Your task to perform on an android device: Go to Amazon Image 0: 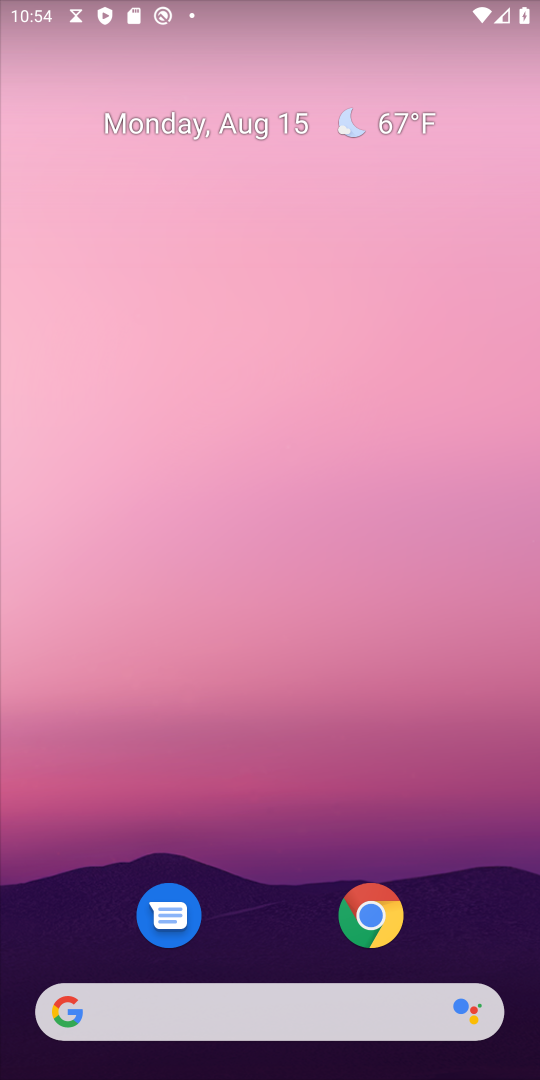
Step 0: click (378, 901)
Your task to perform on an android device: Go to Amazon Image 1: 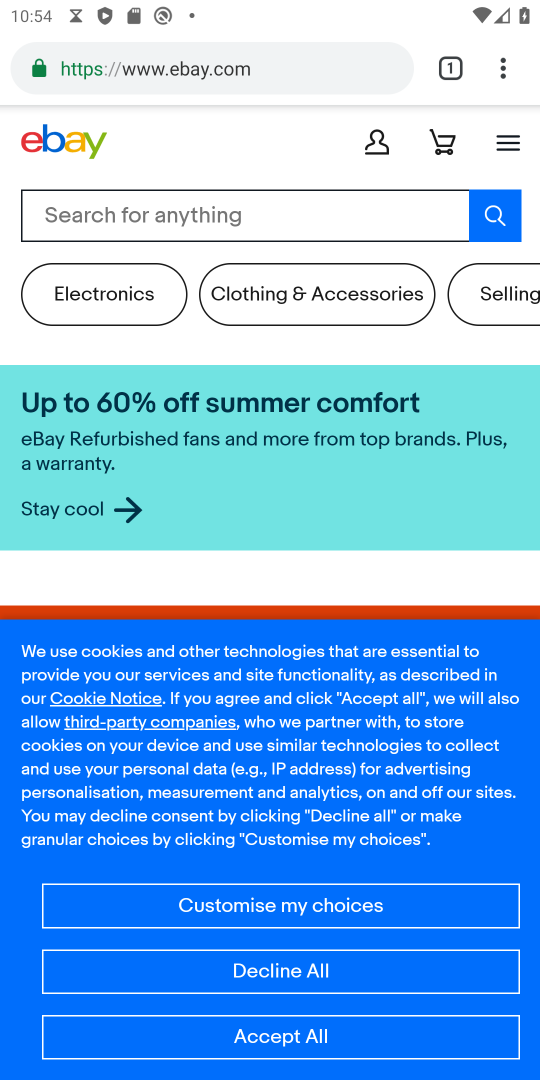
Step 1: click (455, 80)
Your task to perform on an android device: Go to Amazon Image 2: 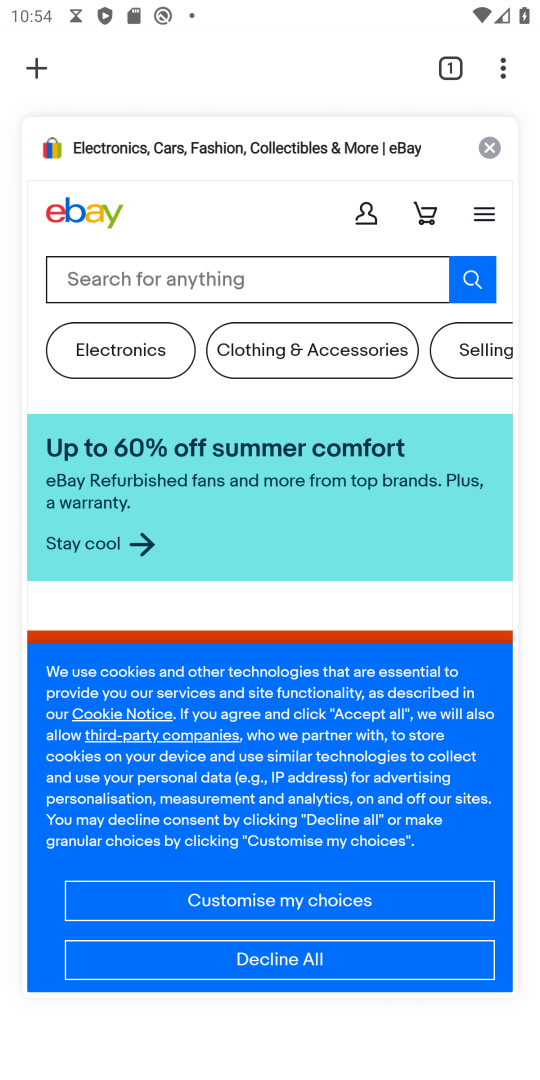
Step 2: click (41, 65)
Your task to perform on an android device: Go to Amazon Image 3: 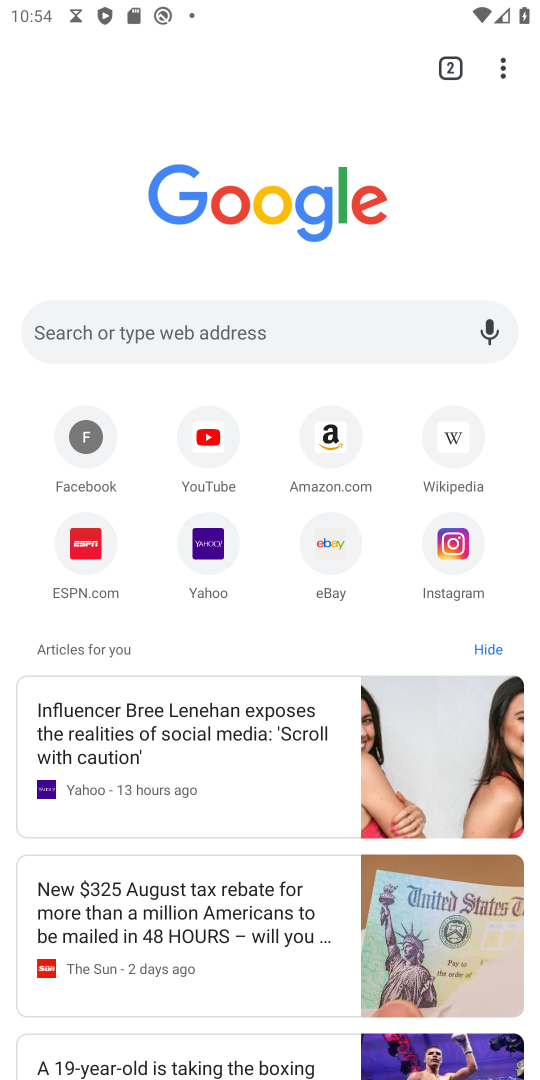
Step 3: click (326, 427)
Your task to perform on an android device: Go to Amazon Image 4: 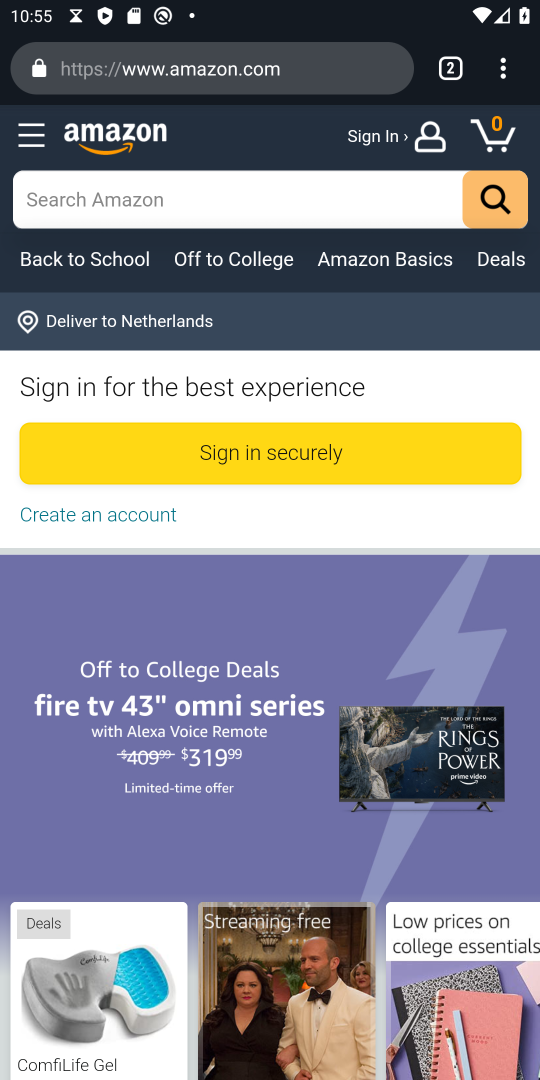
Step 4: task complete